Your task to perform on an android device: allow notifications from all sites in the chrome app Image 0: 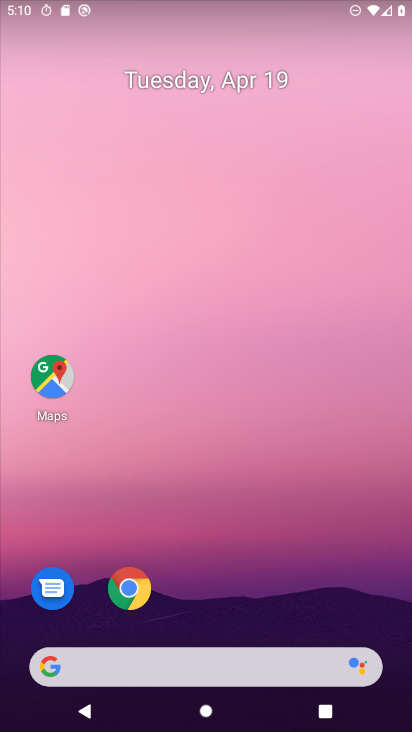
Step 0: click (130, 590)
Your task to perform on an android device: allow notifications from all sites in the chrome app Image 1: 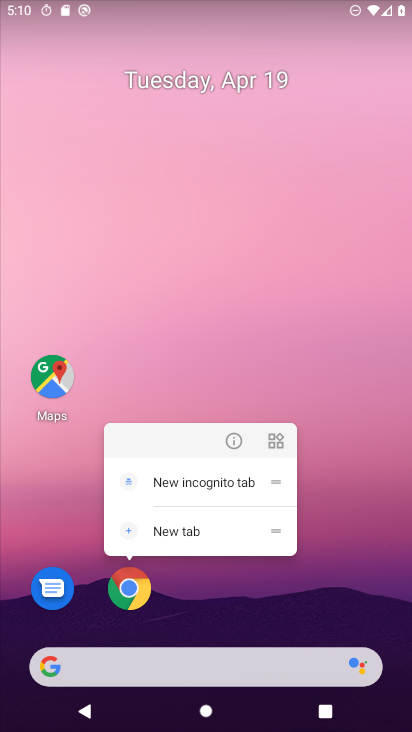
Step 1: click (133, 596)
Your task to perform on an android device: allow notifications from all sites in the chrome app Image 2: 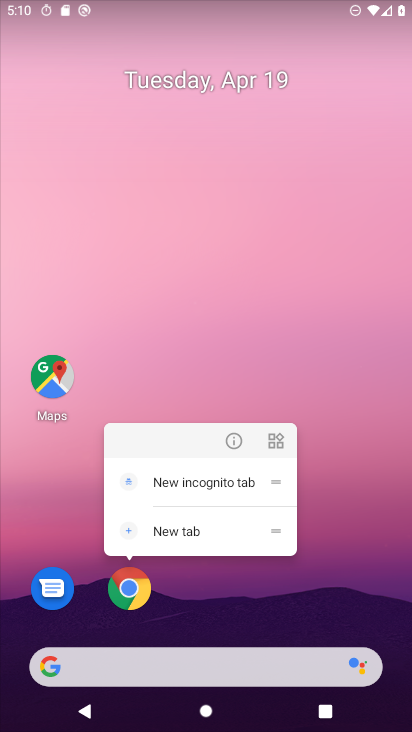
Step 2: click (134, 596)
Your task to perform on an android device: allow notifications from all sites in the chrome app Image 3: 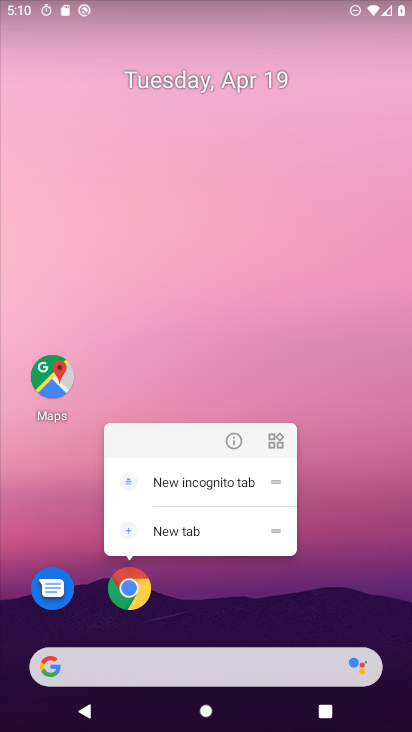
Step 3: click (136, 593)
Your task to perform on an android device: allow notifications from all sites in the chrome app Image 4: 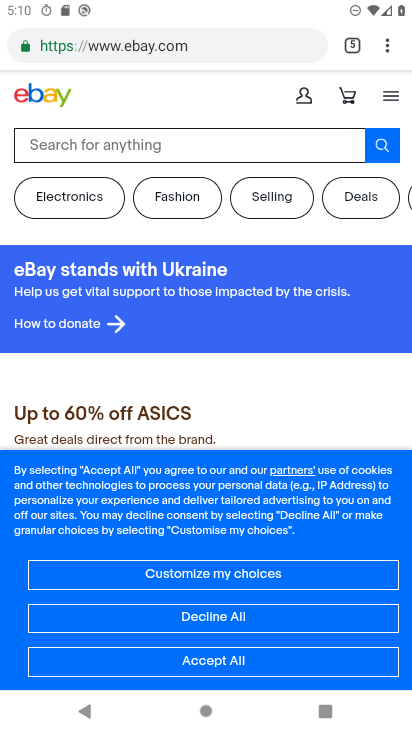
Step 4: click (384, 47)
Your task to perform on an android device: allow notifications from all sites in the chrome app Image 5: 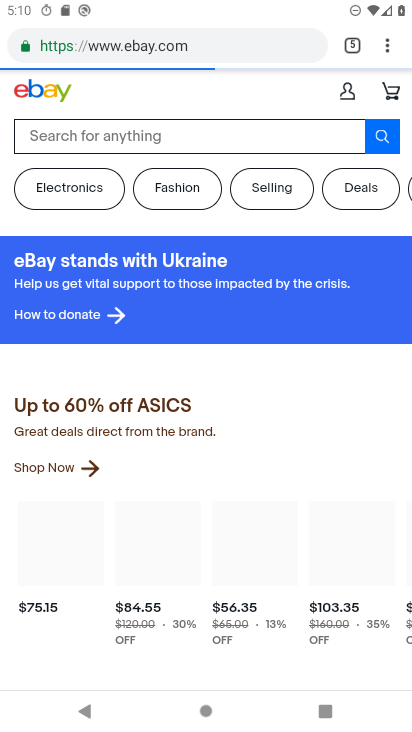
Step 5: click (383, 46)
Your task to perform on an android device: allow notifications from all sites in the chrome app Image 6: 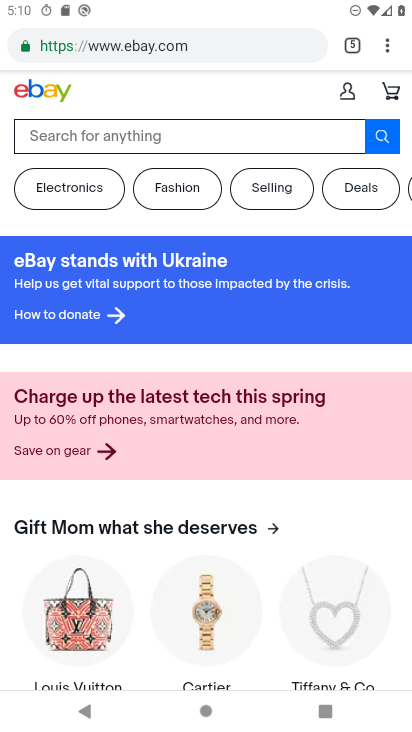
Step 6: click (386, 43)
Your task to perform on an android device: allow notifications from all sites in the chrome app Image 7: 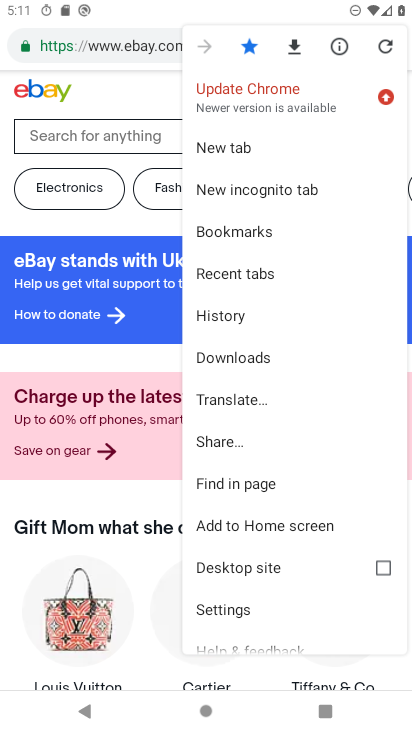
Step 7: click (241, 611)
Your task to perform on an android device: allow notifications from all sites in the chrome app Image 8: 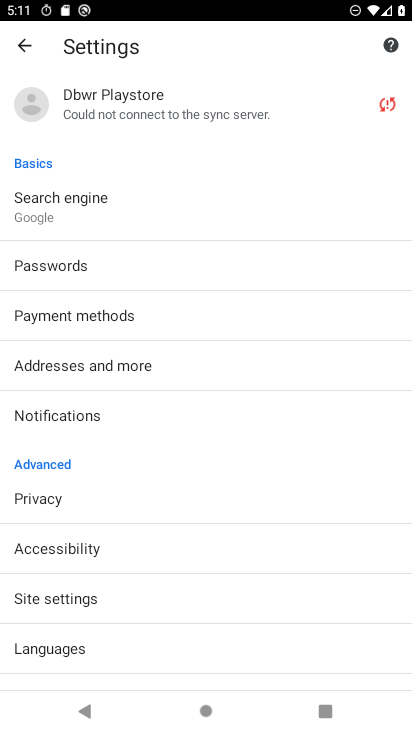
Step 8: click (115, 591)
Your task to perform on an android device: allow notifications from all sites in the chrome app Image 9: 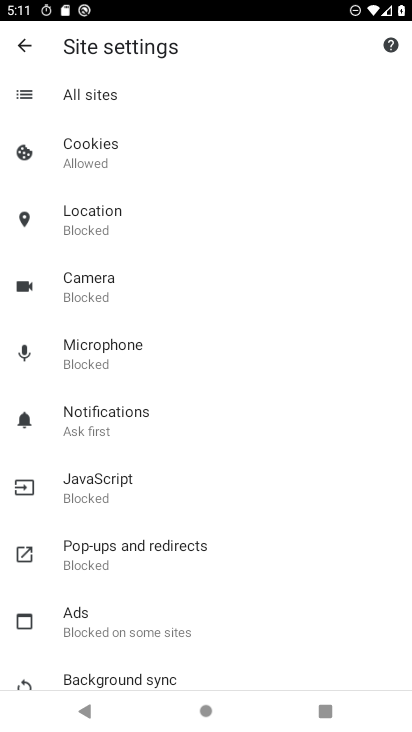
Step 9: click (137, 413)
Your task to perform on an android device: allow notifications from all sites in the chrome app Image 10: 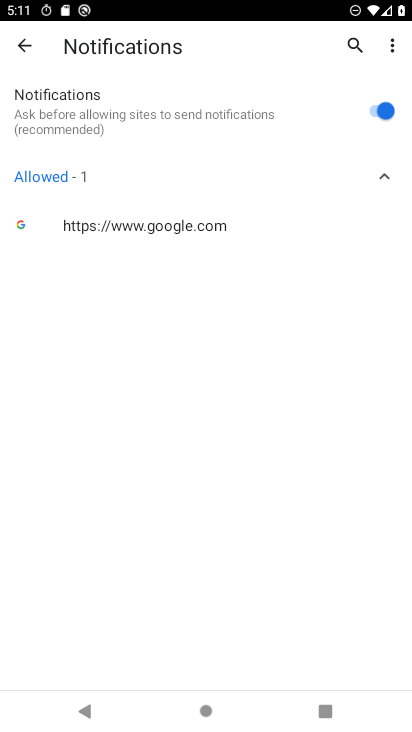
Step 10: task complete